Your task to perform on an android device: Find coffee shops on Maps Image 0: 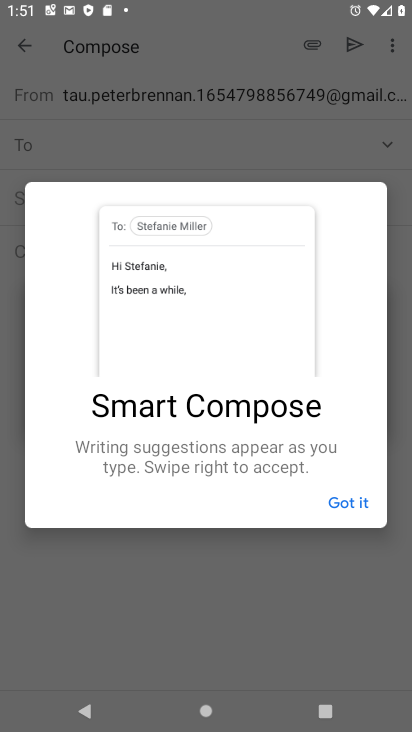
Step 0: press home button
Your task to perform on an android device: Find coffee shops on Maps Image 1: 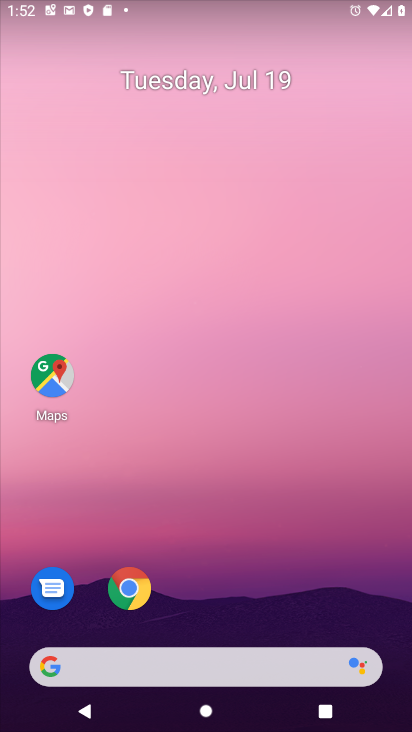
Step 1: drag from (367, 611) to (284, 63)
Your task to perform on an android device: Find coffee shops on Maps Image 2: 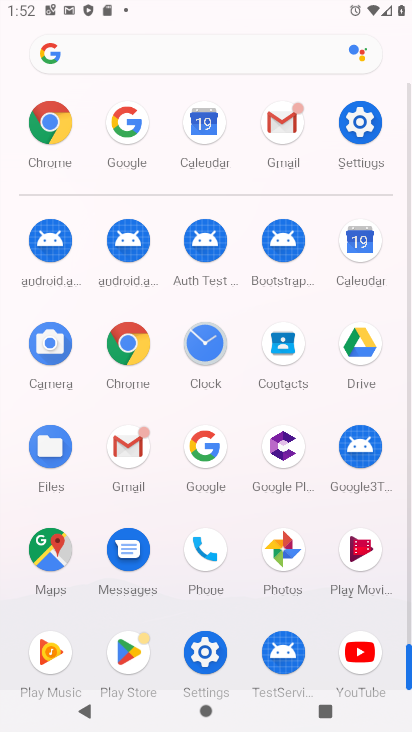
Step 2: click (62, 554)
Your task to perform on an android device: Find coffee shops on Maps Image 3: 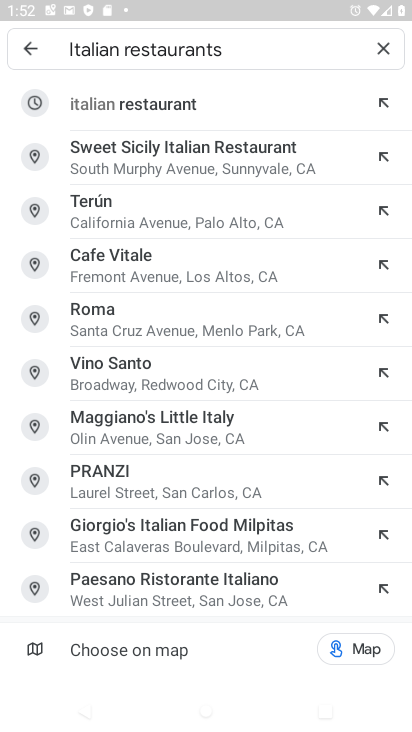
Step 3: press back button
Your task to perform on an android device: Find coffee shops on Maps Image 4: 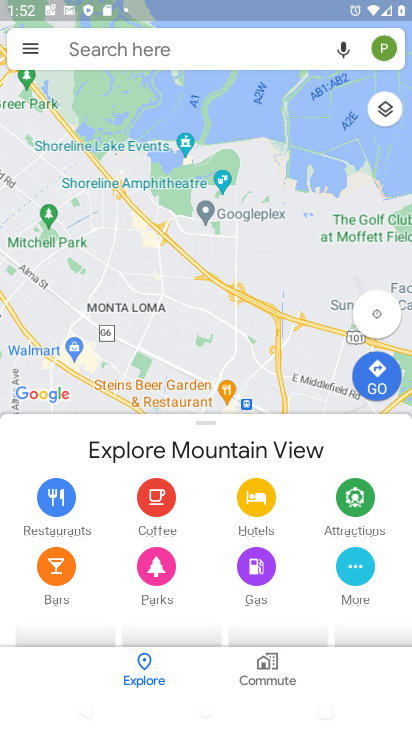
Step 4: click (165, 54)
Your task to perform on an android device: Find coffee shops on Maps Image 5: 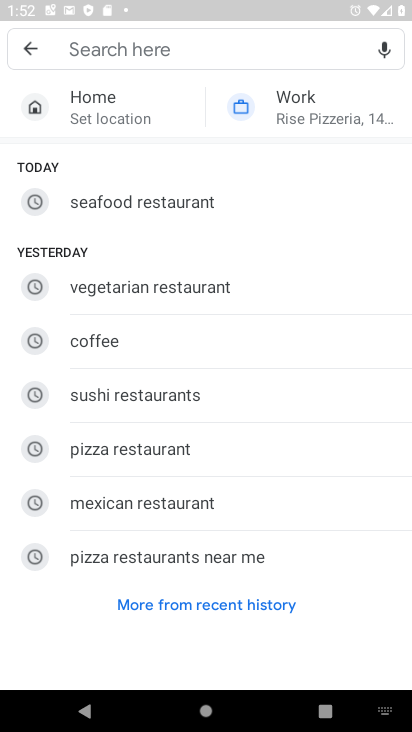
Step 5: click (144, 349)
Your task to perform on an android device: Find coffee shops on Maps Image 6: 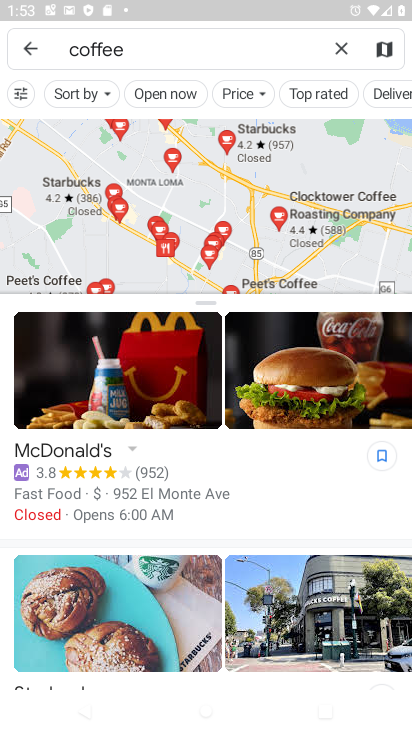
Step 6: task complete